Your task to perform on an android device: toggle location history Image 0: 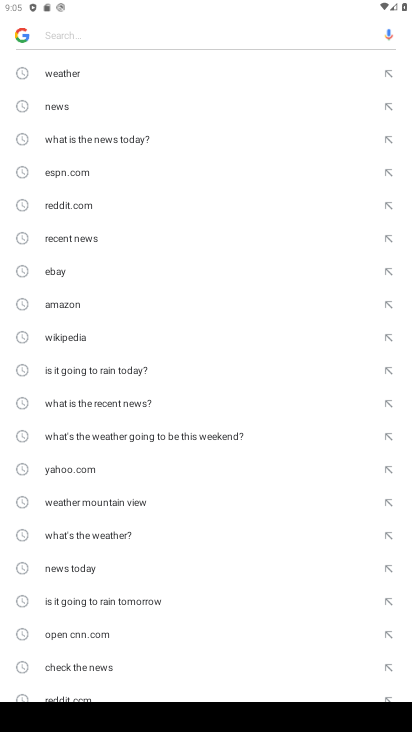
Step 0: press home button
Your task to perform on an android device: toggle location history Image 1: 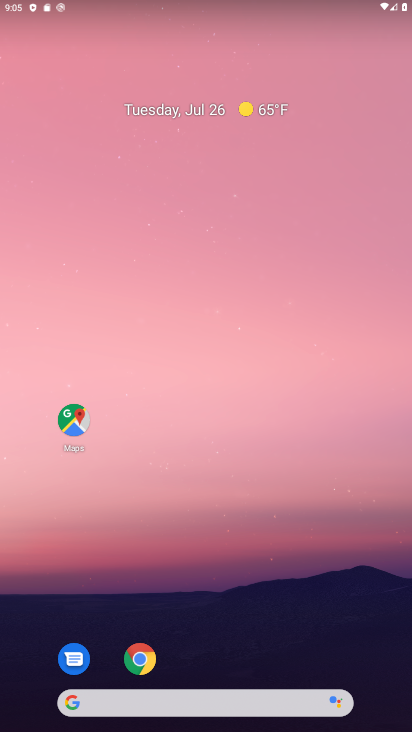
Step 1: drag from (184, 651) to (204, 164)
Your task to perform on an android device: toggle location history Image 2: 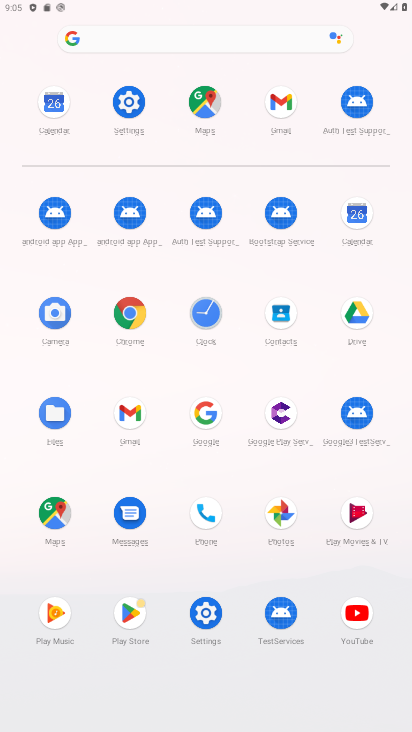
Step 2: click (208, 602)
Your task to perform on an android device: toggle location history Image 3: 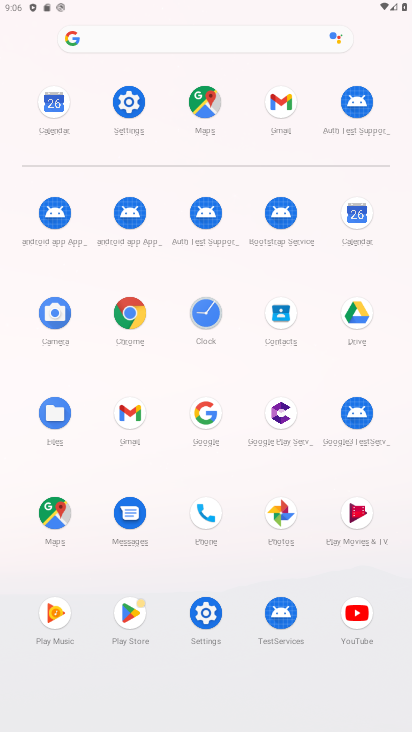
Step 3: click (199, 625)
Your task to perform on an android device: toggle location history Image 4: 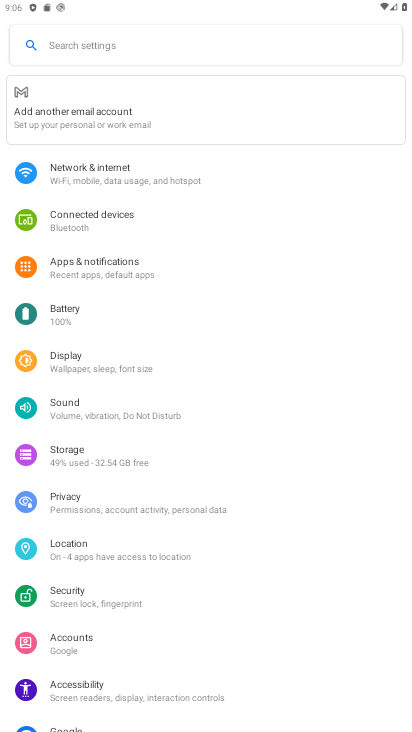
Step 4: click (76, 542)
Your task to perform on an android device: toggle location history Image 5: 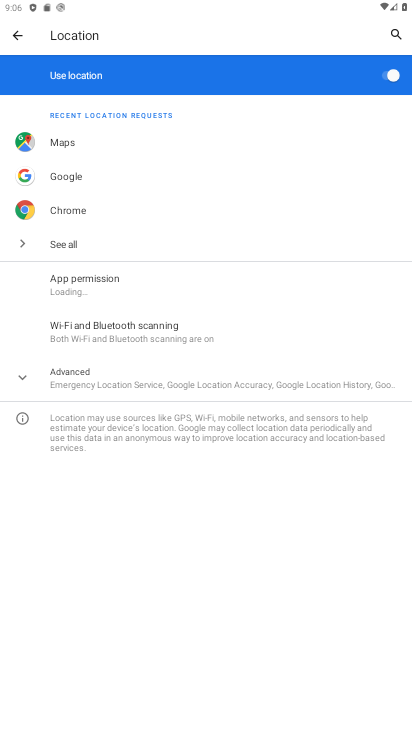
Step 5: click (56, 387)
Your task to perform on an android device: toggle location history Image 6: 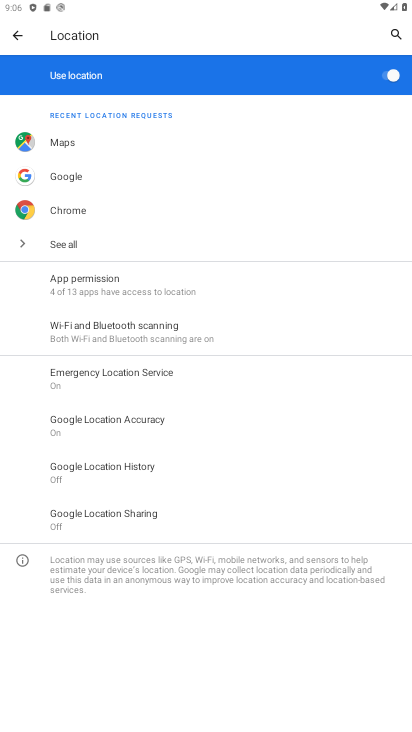
Step 6: click (84, 473)
Your task to perform on an android device: toggle location history Image 7: 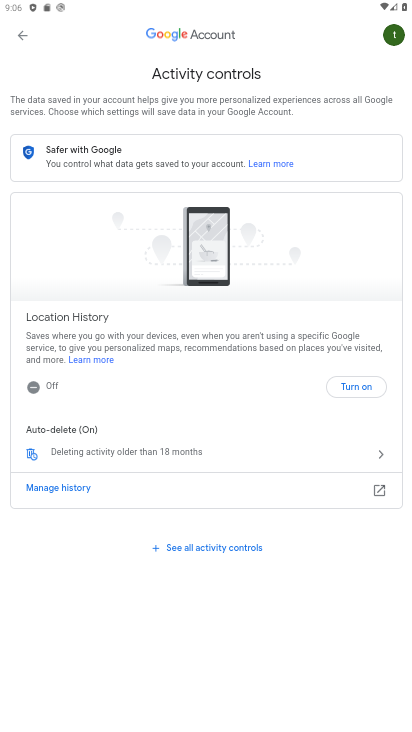
Step 7: click (343, 378)
Your task to perform on an android device: toggle location history Image 8: 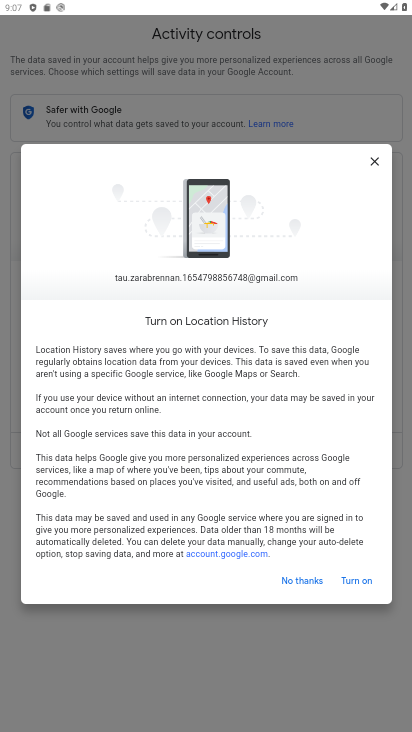
Step 8: click (361, 583)
Your task to perform on an android device: toggle location history Image 9: 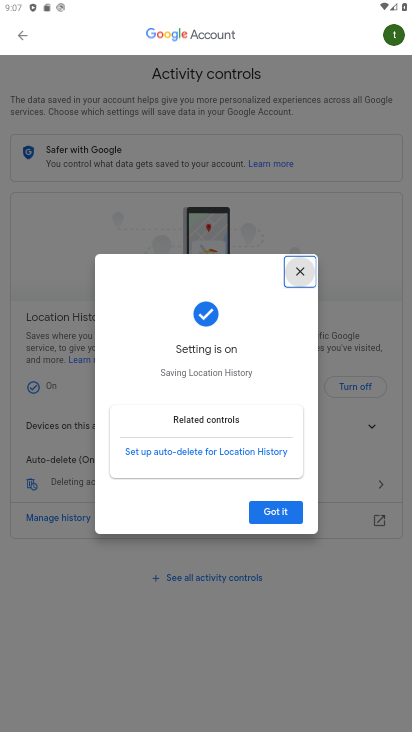
Step 9: click (265, 515)
Your task to perform on an android device: toggle location history Image 10: 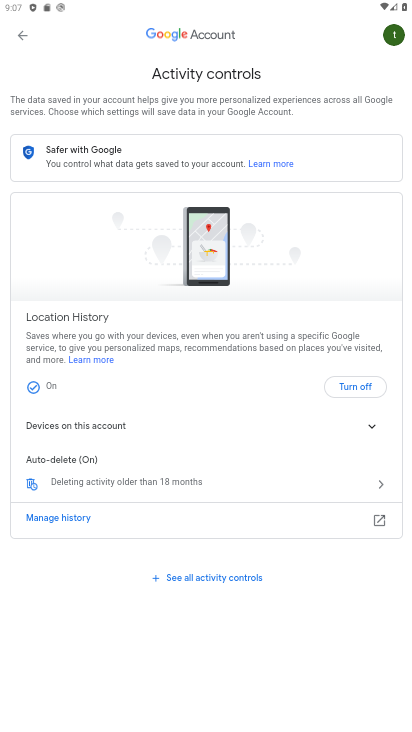
Step 10: task complete